Your task to perform on an android device: Go to sound settings Image 0: 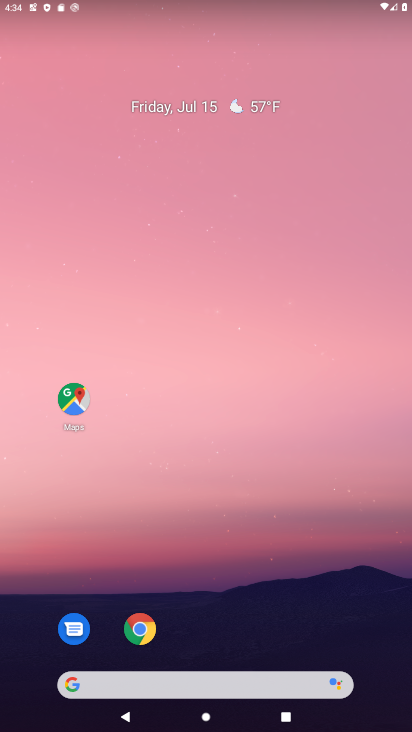
Step 0: drag from (252, 612) to (368, 205)
Your task to perform on an android device: Go to sound settings Image 1: 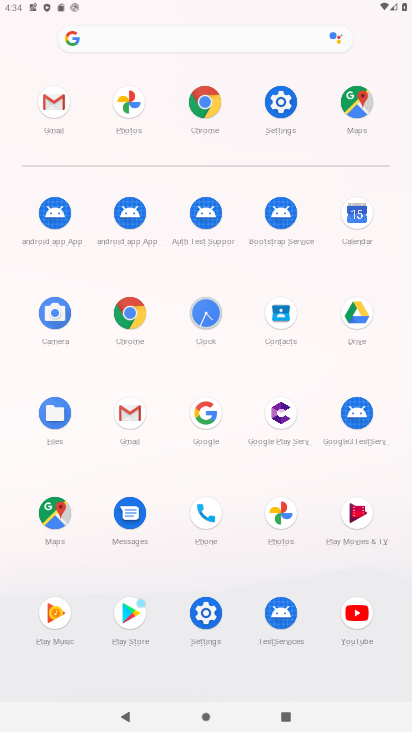
Step 1: click (276, 101)
Your task to perform on an android device: Go to sound settings Image 2: 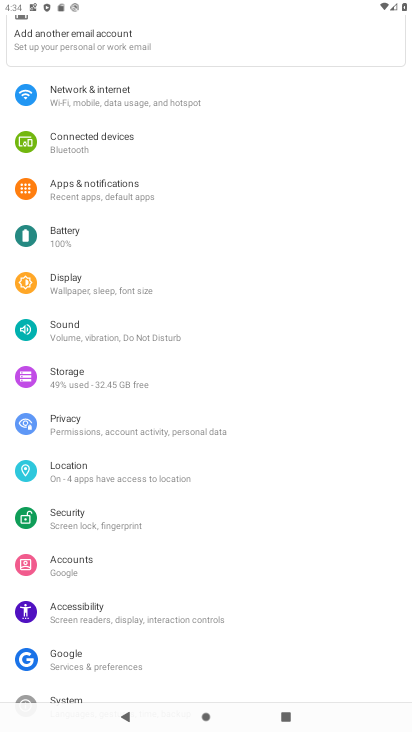
Step 2: click (51, 335)
Your task to perform on an android device: Go to sound settings Image 3: 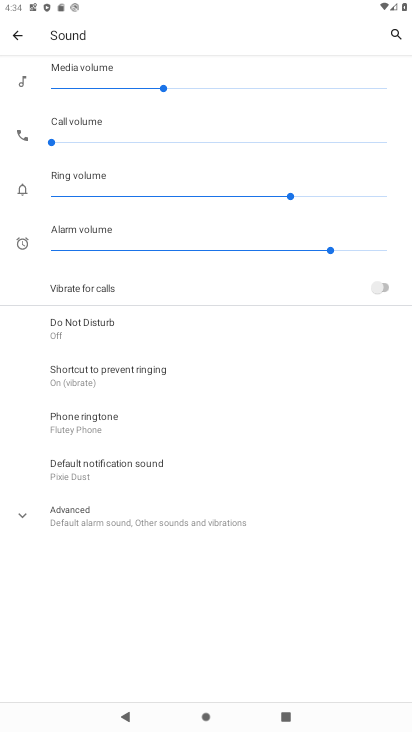
Step 3: task complete